Your task to perform on an android device: open a bookmark in the chrome app Image 0: 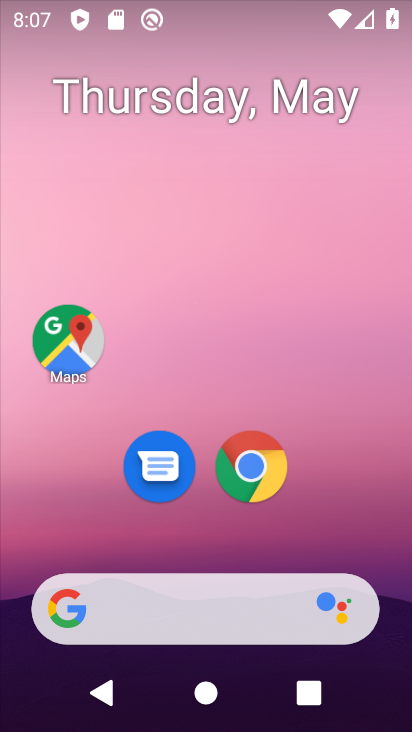
Step 0: click (215, 481)
Your task to perform on an android device: open a bookmark in the chrome app Image 1: 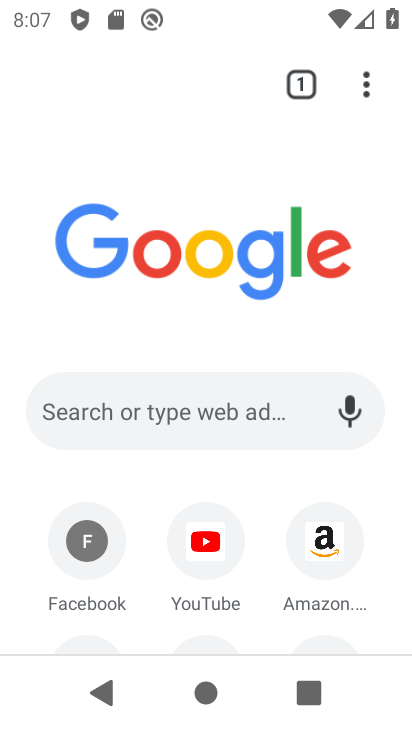
Step 1: click (375, 91)
Your task to perform on an android device: open a bookmark in the chrome app Image 2: 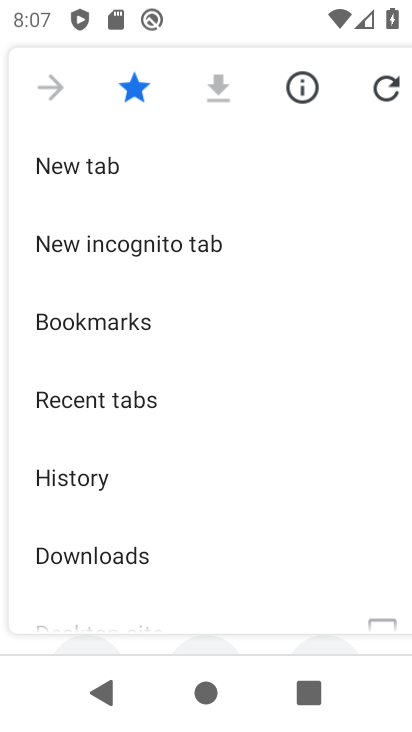
Step 2: click (44, 305)
Your task to perform on an android device: open a bookmark in the chrome app Image 3: 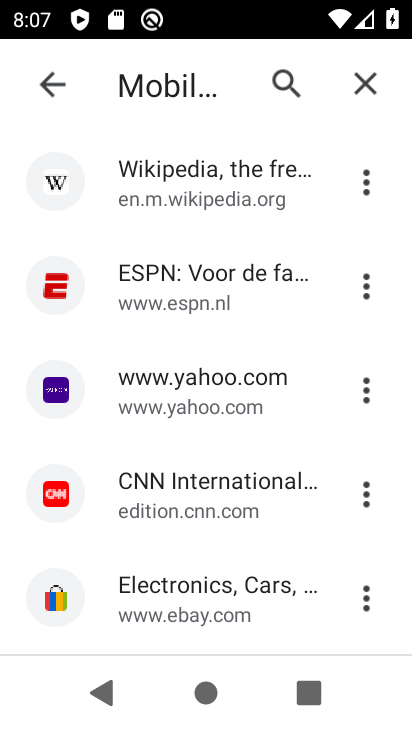
Step 3: task complete